Your task to perform on an android device: see sites visited before in the chrome app Image 0: 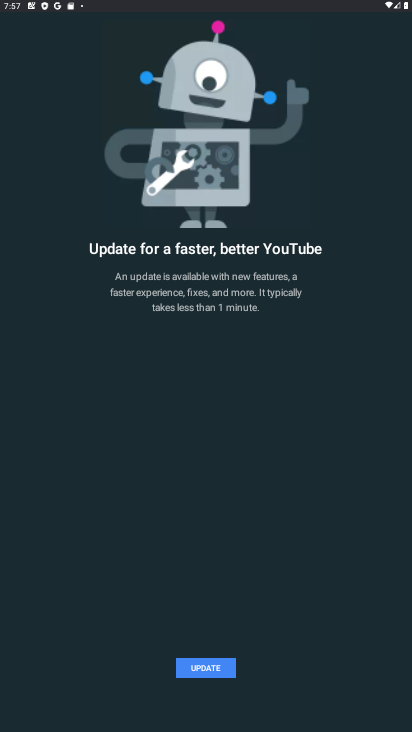
Step 0: press back button
Your task to perform on an android device: see sites visited before in the chrome app Image 1: 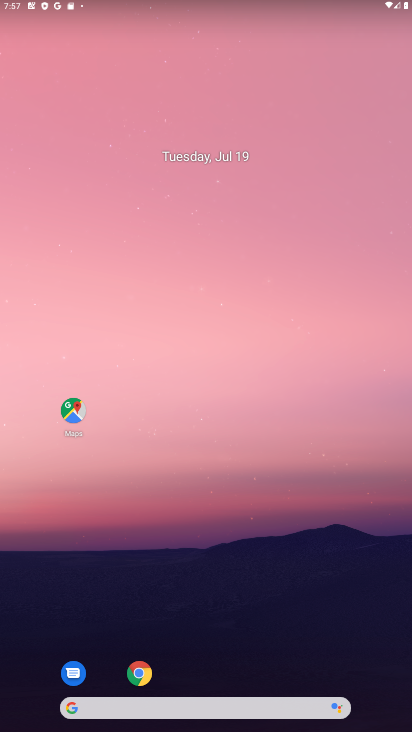
Step 1: click (132, 667)
Your task to perform on an android device: see sites visited before in the chrome app Image 2: 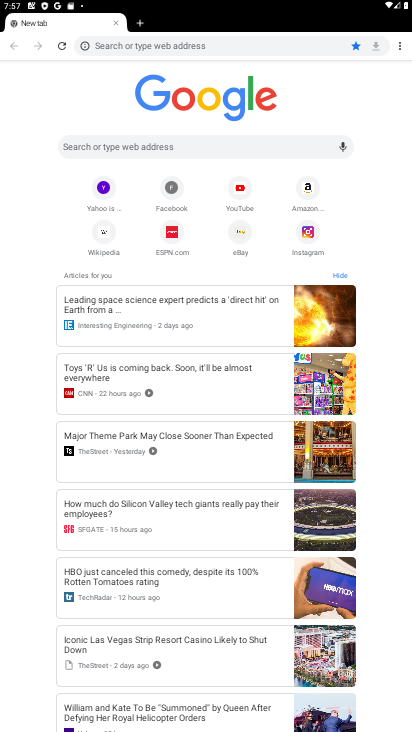
Step 2: click (391, 53)
Your task to perform on an android device: see sites visited before in the chrome app Image 3: 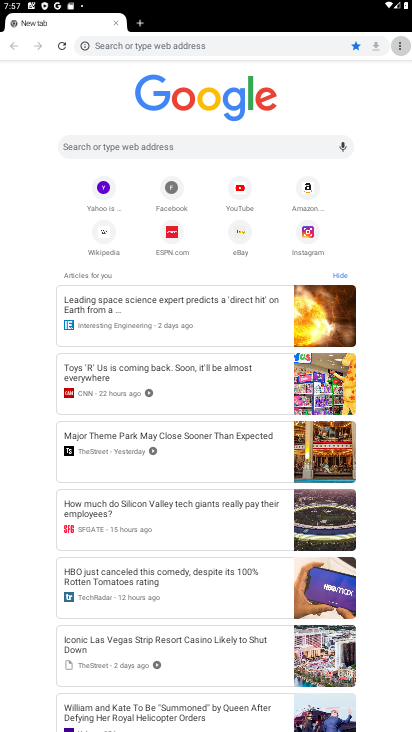
Step 3: click (391, 53)
Your task to perform on an android device: see sites visited before in the chrome app Image 4: 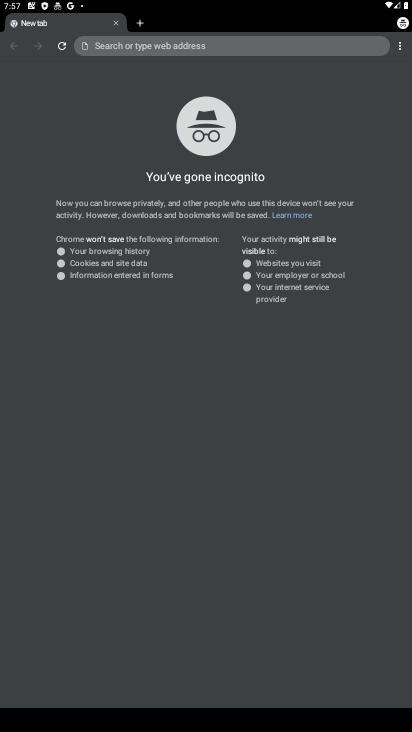
Step 4: click (401, 48)
Your task to perform on an android device: see sites visited before in the chrome app Image 5: 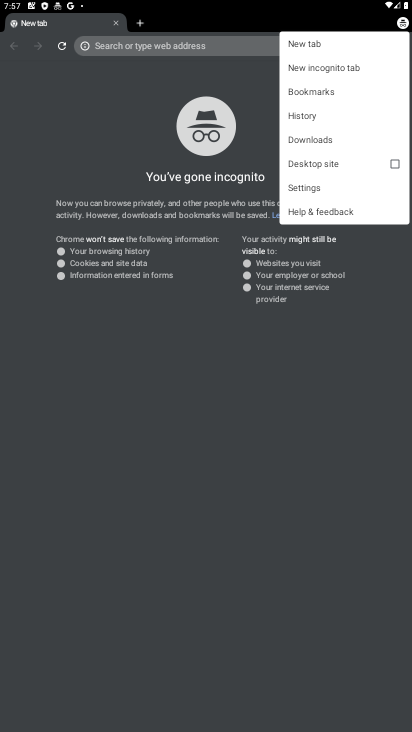
Step 5: click (115, 23)
Your task to perform on an android device: see sites visited before in the chrome app Image 6: 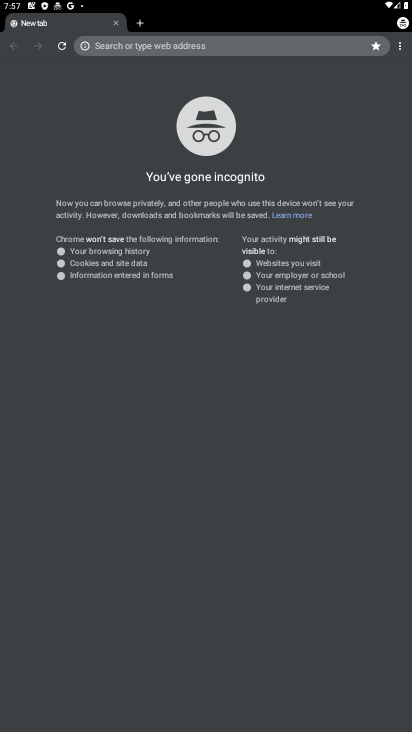
Step 6: click (115, 29)
Your task to perform on an android device: see sites visited before in the chrome app Image 7: 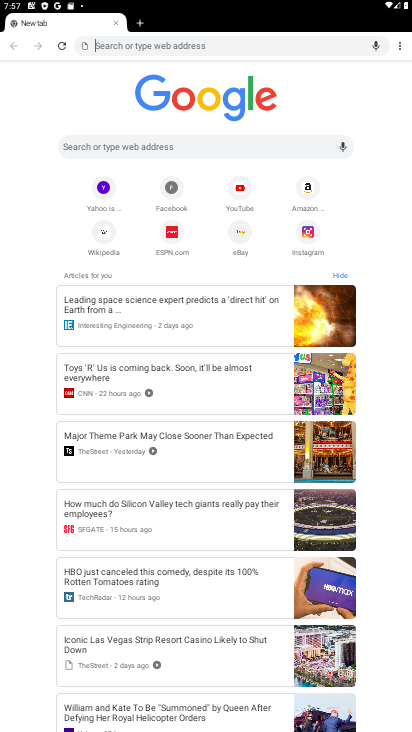
Step 7: click (395, 46)
Your task to perform on an android device: see sites visited before in the chrome app Image 8: 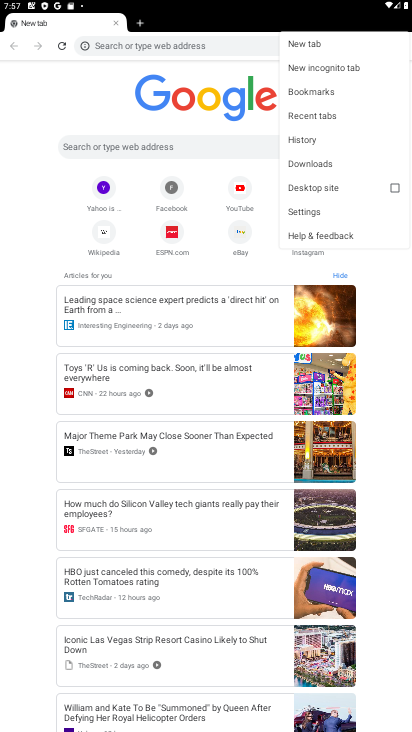
Step 8: click (313, 215)
Your task to perform on an android device: see sites visited before in the chrome app Image 9: 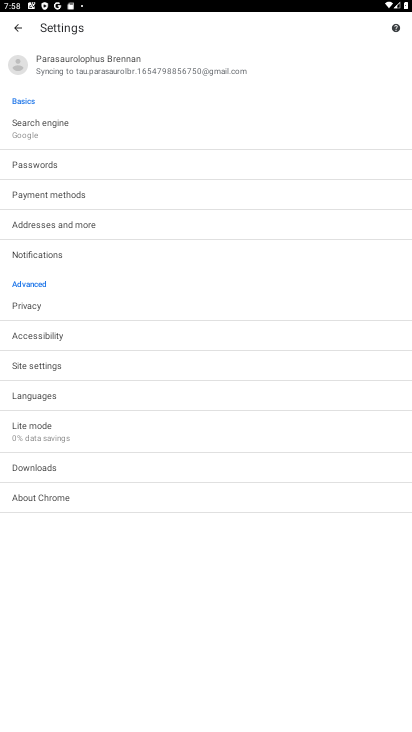
Step 9: task complete